Your task to perform on an android device: stop showing notifications on the lock screen Image 0: 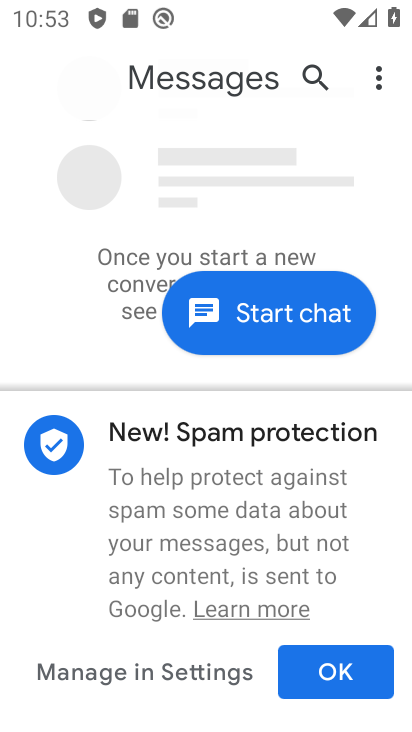
Step 0: press home button
Your task to perform on an android device: stop showing notifications on the lock screen Image 1: 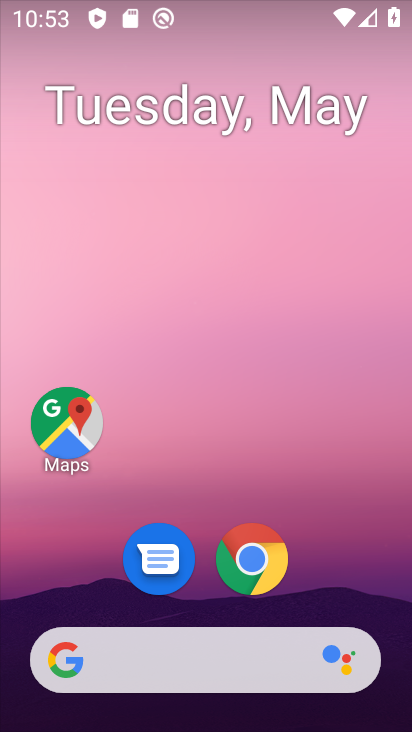
Step 1: drag from (346, 598) to (294, 34)
Your task to perform on an android device: stop showing notifications on the lock screen Image 2: 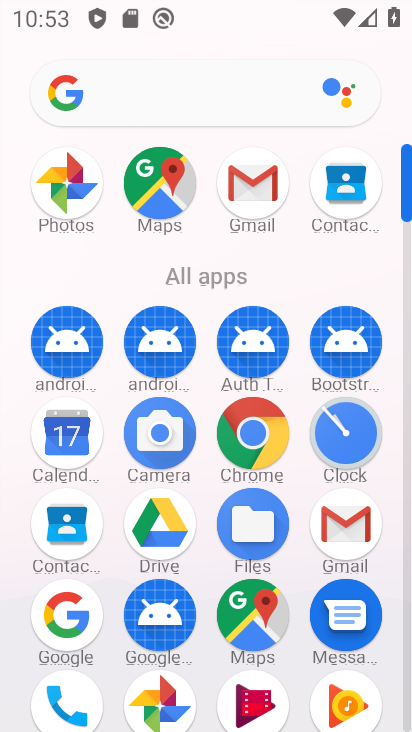
Step 2: drag from (175, 204) to (180, 66)
Your task to perform on an android device: stop showing notifications on the lock screen Image 3: 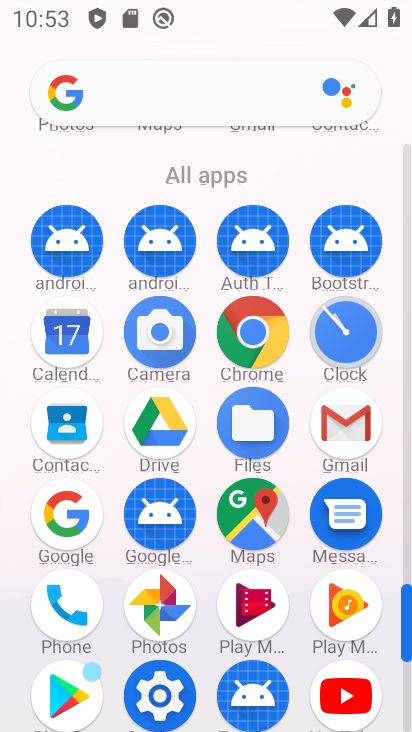
Step 3: click (171, 705)
Your task to perform on an android device: stop showing notifications on the lock screen Image 4: 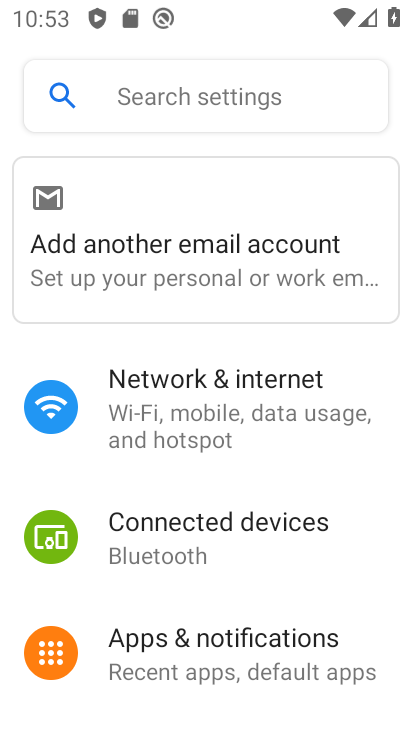
Step 4: drag from (229, 661) to (215, 354)
Your task to perform on an android device: stop showing notifications on the lock screen Image 5: 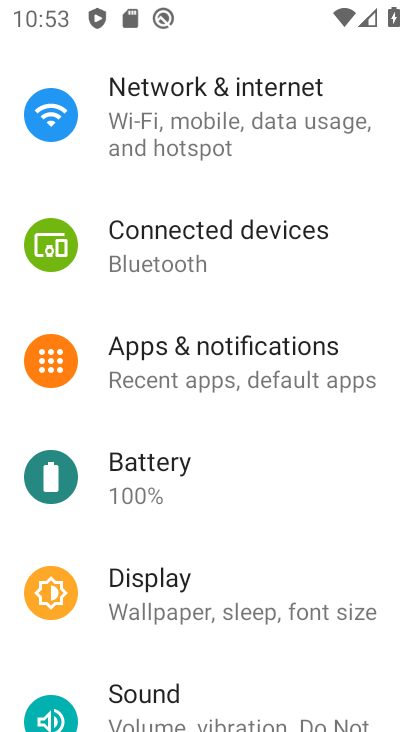
Step 5: click (217, 343)
Your task to perform on an android device: stop showing notifications on the lock screen Image 6: 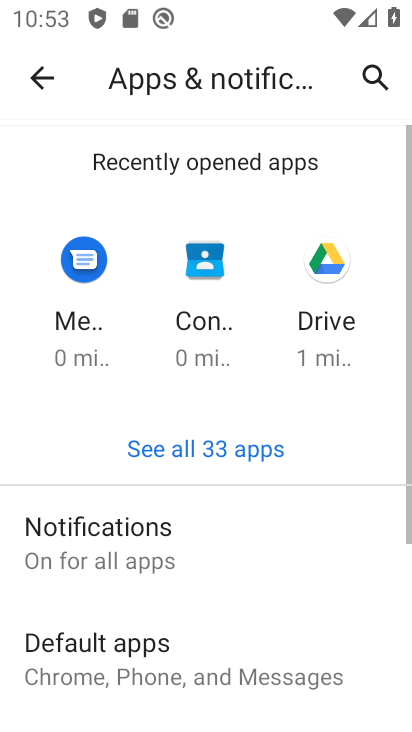
Step 6: click (217, 558)
Your task to perform on an android device: stop showing notifications on the lock screen Image 7: 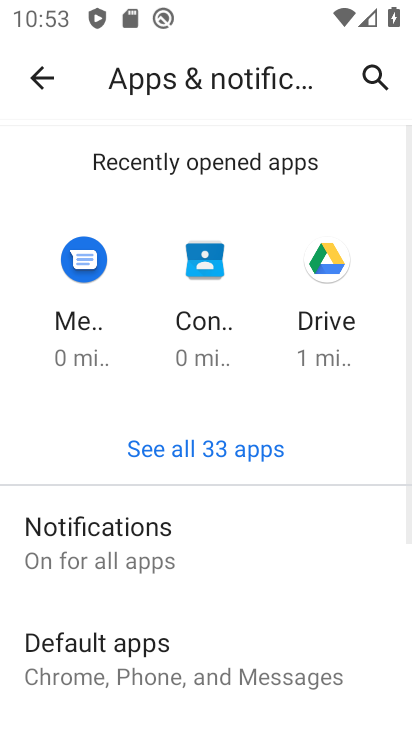
Step 7: drag from (207, 587) to (213, 63)
Your task to perform on an android device: stop showing notifications on the lock screen Image 8: 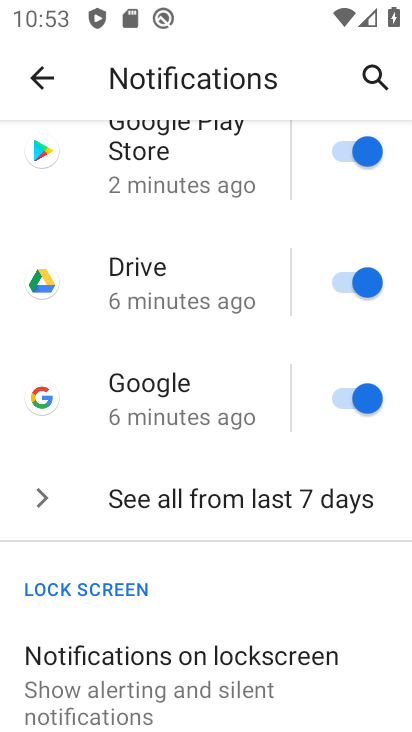
Step 8: click (211, 645)
Your task to perform on an android device: stop showing notifications on the lock screen Image 9: 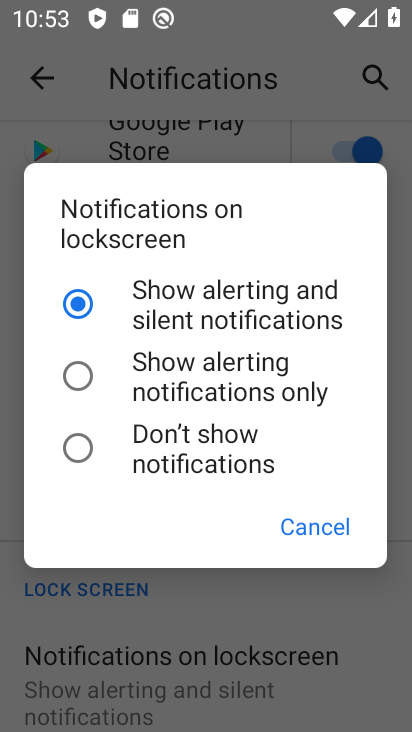
Step 9: click (189, 455)
Your task to perform on an android device: stop showing notifications on the lock screen Image 10: 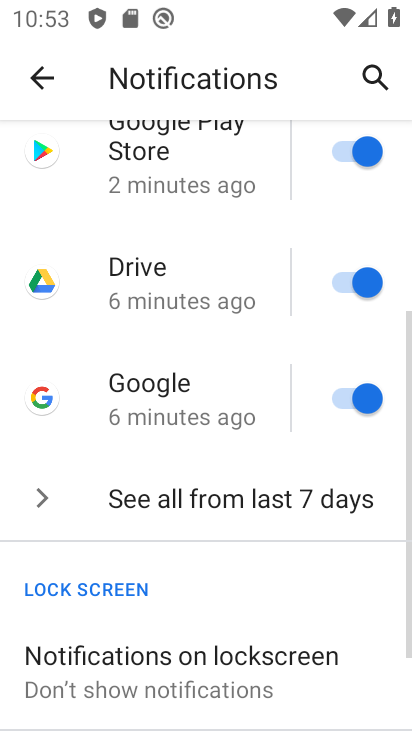
Step 10: task complete